Your task to perform on an android device: What's the weather? Image 0: 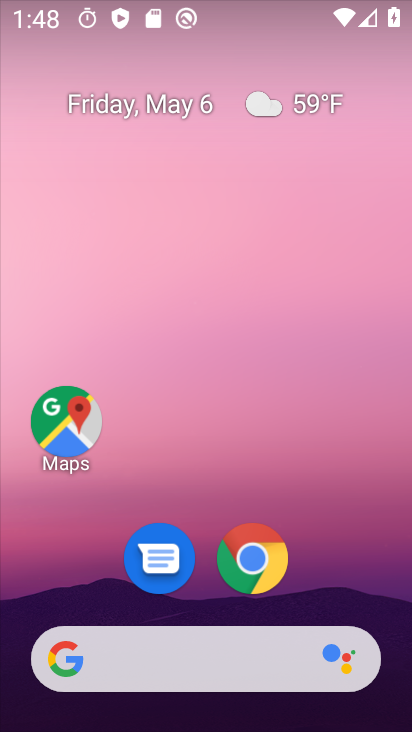
Step 0: click (274, 107)
Your task to perform on an android device: What's the weather? Image 1: 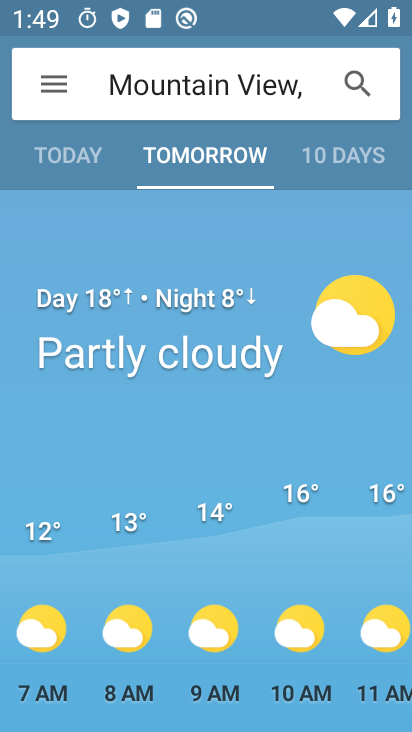
Step 1: click (63, 155)
Your task to perform on an android device: What's the weather? Image 2: 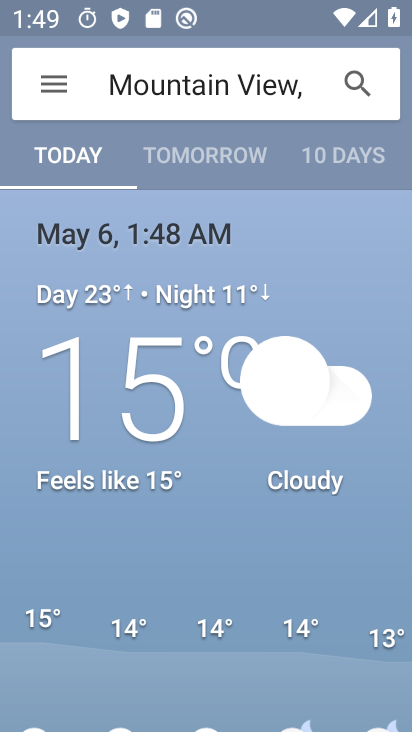
Step 2: task complete